Your task to perform on an android device: Search for seafood restaurants on Google Maps Image 0: 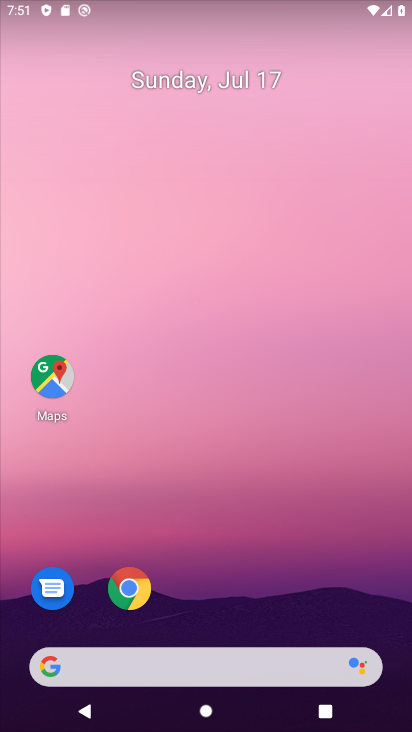
Step 0: drag from (212, 713) to (257, 189)
Your task to perform on an android device: Search for seafood restaurants on Google Maps Image 1: 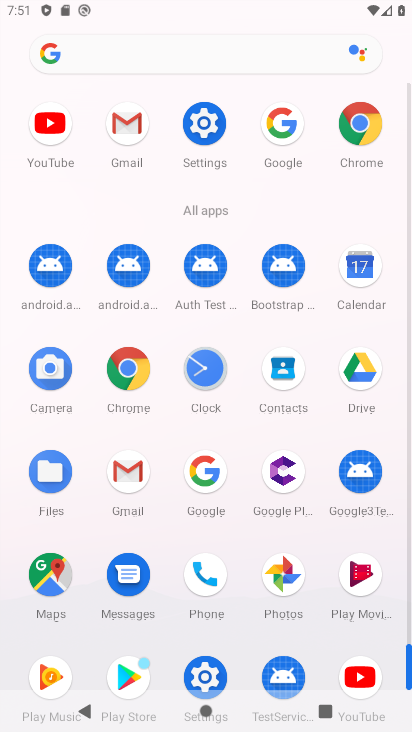
Step 1: click (47, 595)
Your task to perform on an android device: Search for seafood restaurants on Google Maps Image 2: 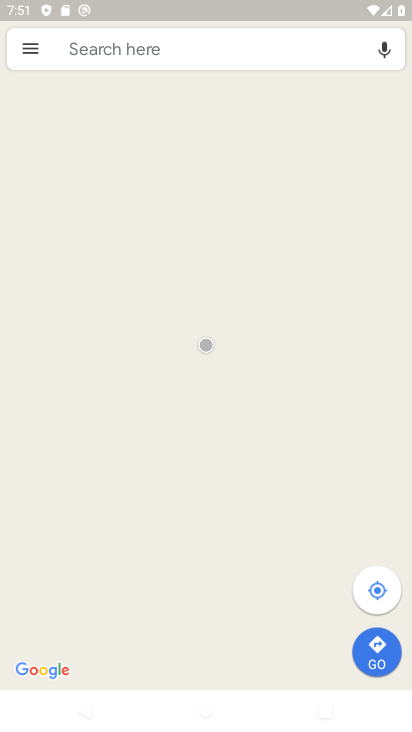
Step 2: click (220, 54)
Your task to perform on an android device: Search for seafood restaurants on Google Maps Image 3: 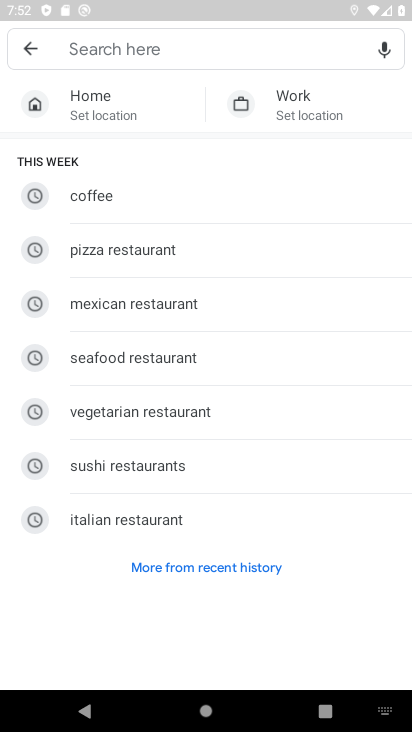
Step 3: click (175, 360)
Your task to perform on an android device: Search for seafood restaurants on Google Maps Image 4: 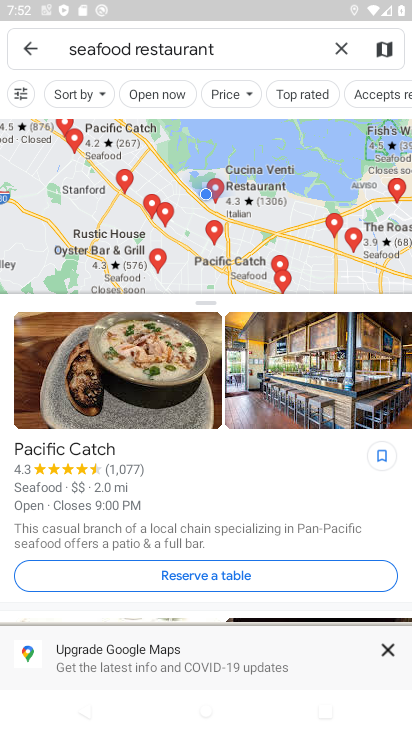
Step 4: task complete